Your task to perform on an android device: Set the phone to "Do not disturb". Image 0: 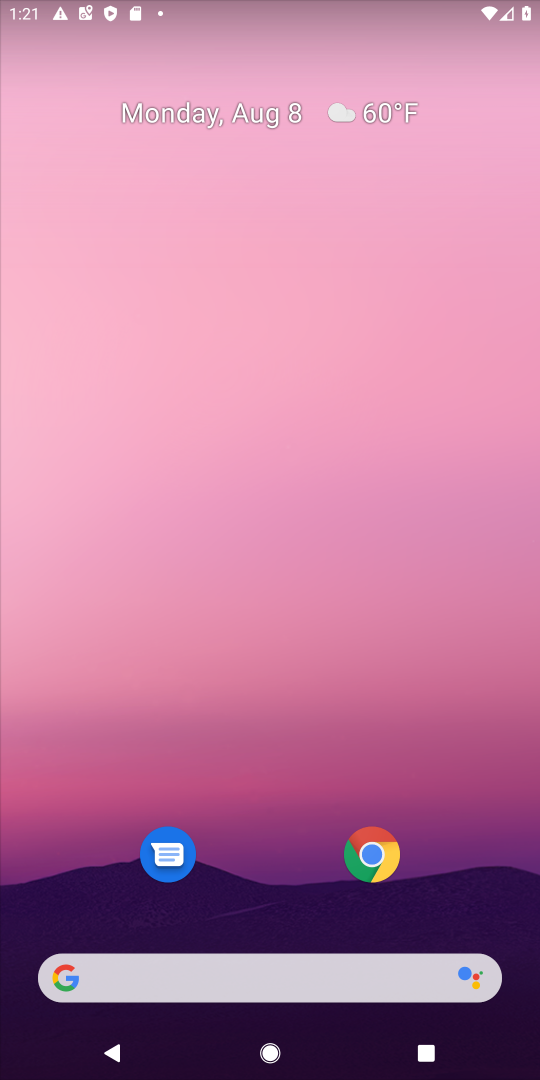
Step 0: press home button
Your task to perform on an android device: Set the phone to "Do not disturb". Image 1: 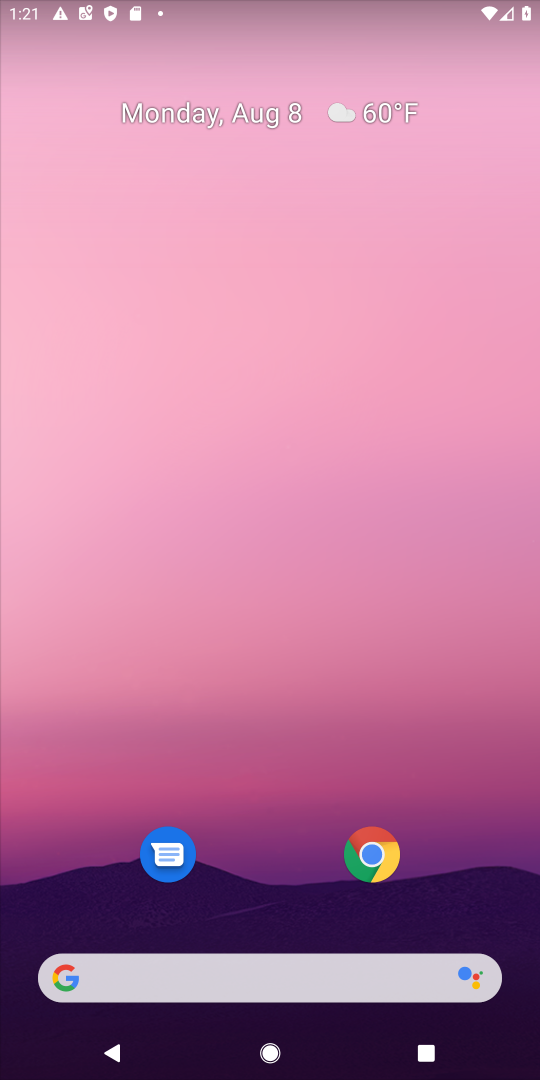
Step 1: drag from (223, 2) to (259, 646)
Your task to perform on an android device: Set the phone to "Do not disturb". Image 2: 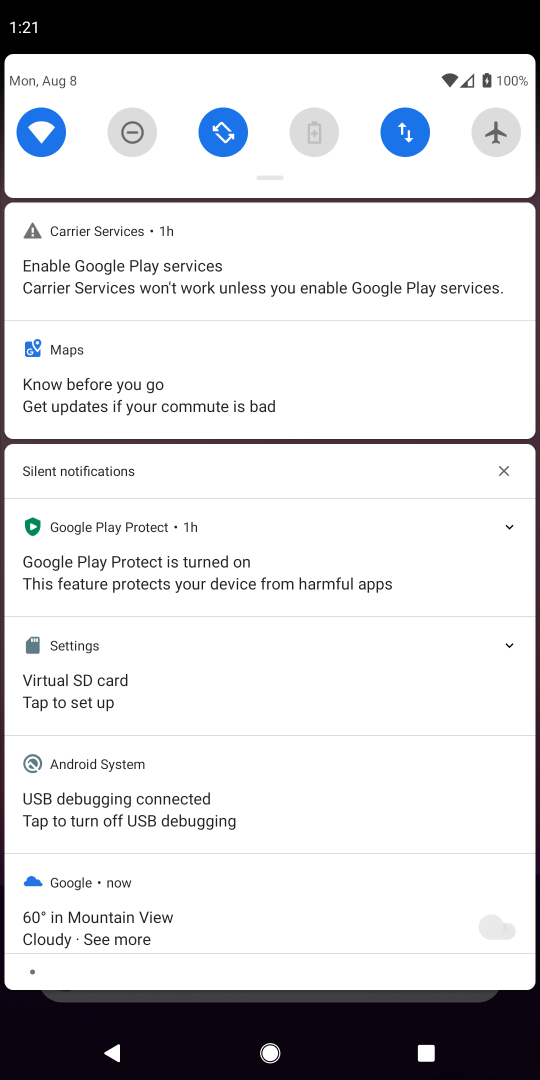
Step 2: drag from (278, 185) to (289, 1067)
Your task to perform on an android device: Set the phone to "Do not disturb". Image 3: 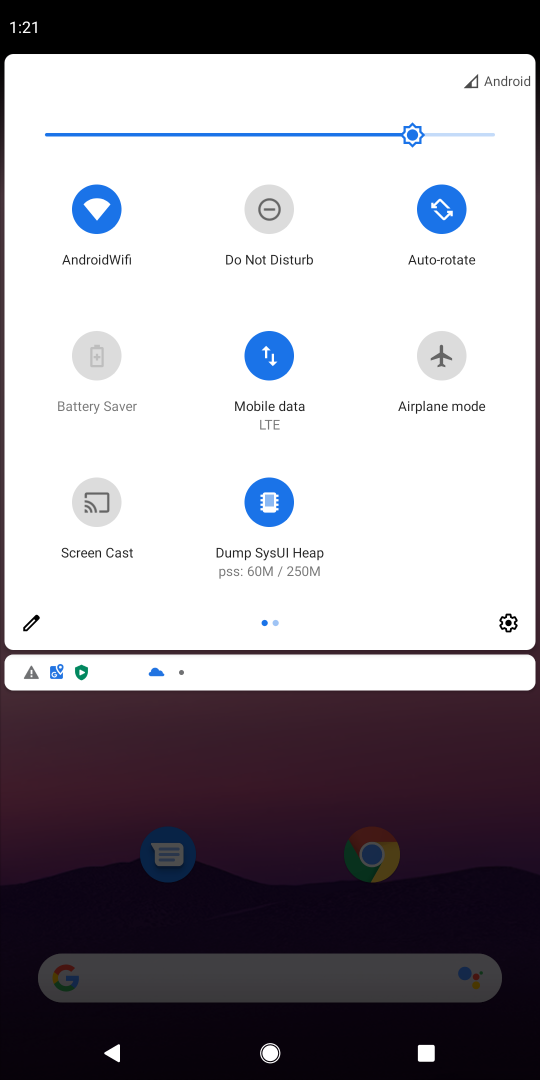
Step 3: click (257, 213)
Your task to perform on an android device: Set the phone to "Do not disturb". Image 4: 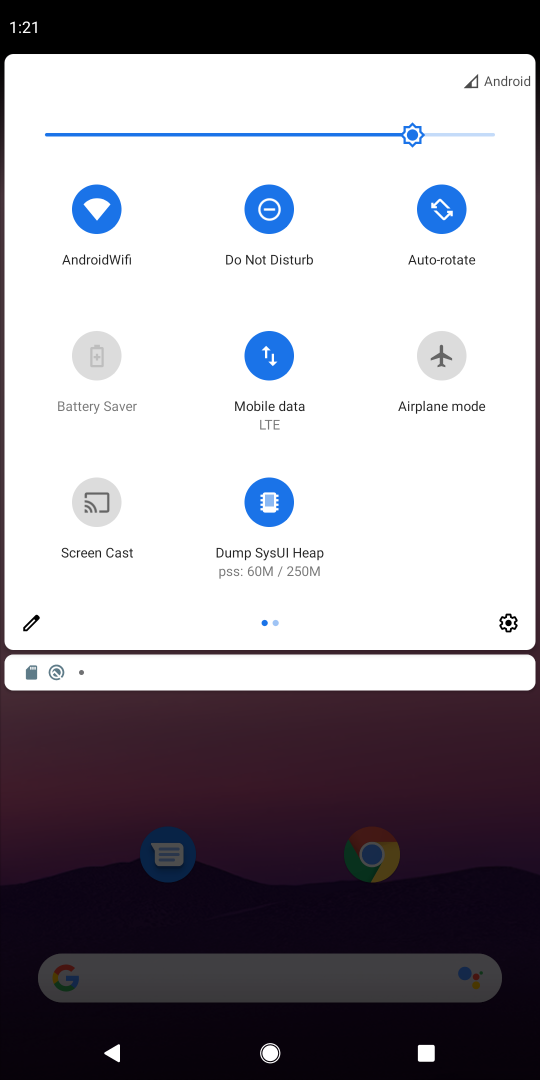
Step 4: task complete